Your task to perform on an android device: manage bookmarks in the chrome app Image 0: 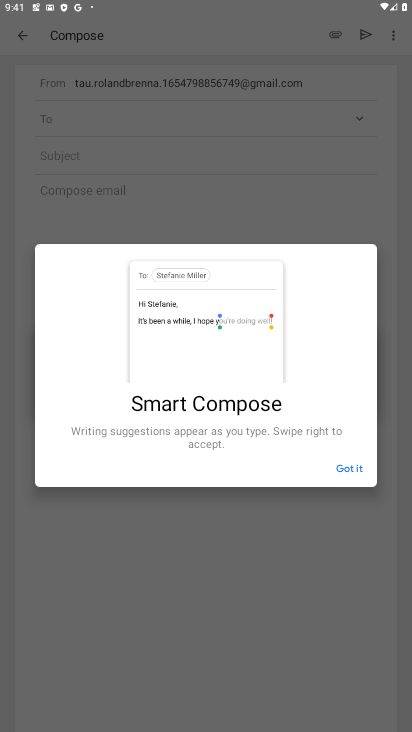
Step 0: press home button
Your task to perform on an android device: manage bookmarks in the chrome app Image 1: 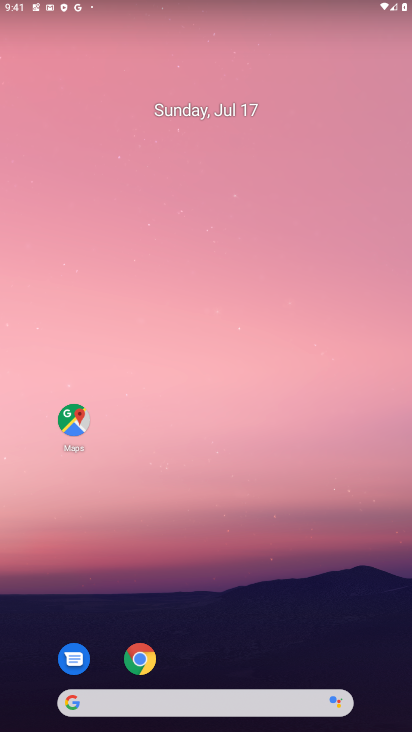
Step 1: click (143, 681)
Your task to perform on an android device: manage bookmarks in the chrome app Image 2: 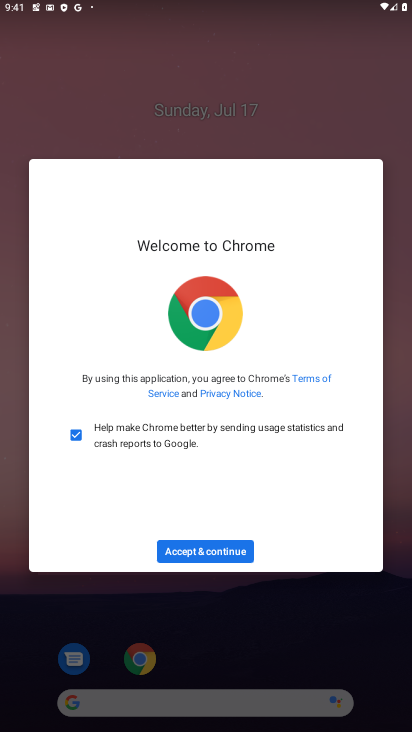
Step 2: click (219, 547)
Your task to perform on an android device: manage bookmarks in the chrome app Image 3: 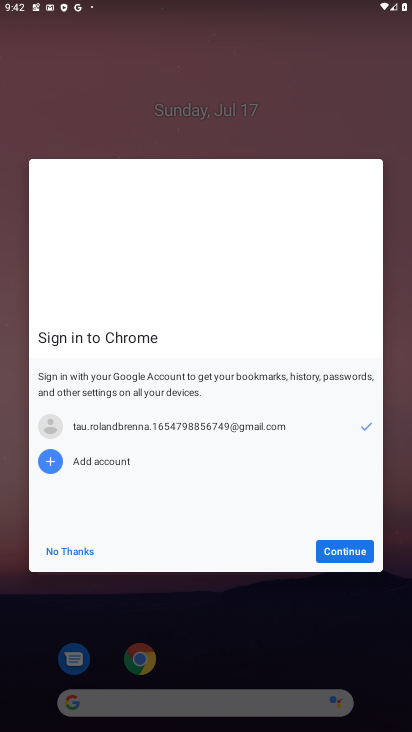
Step 3: click (349, 547)
Your task to perform on an android device: manage bookmarks in the chrome app Image 4: 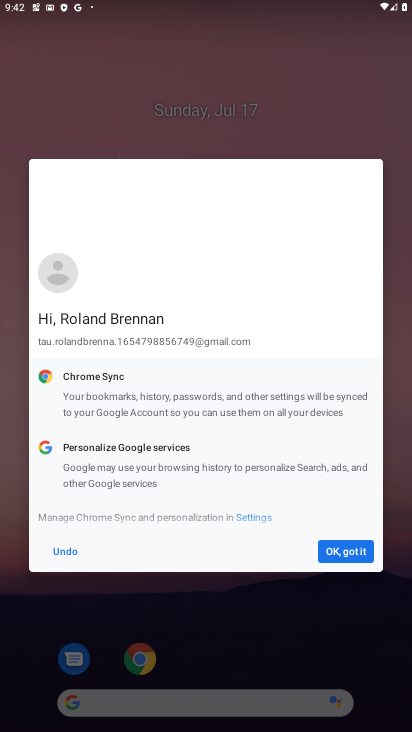
Step 4: click (349, 547)
Your task to perform on an android device: manage bookmarks in the chrome app Image 5: 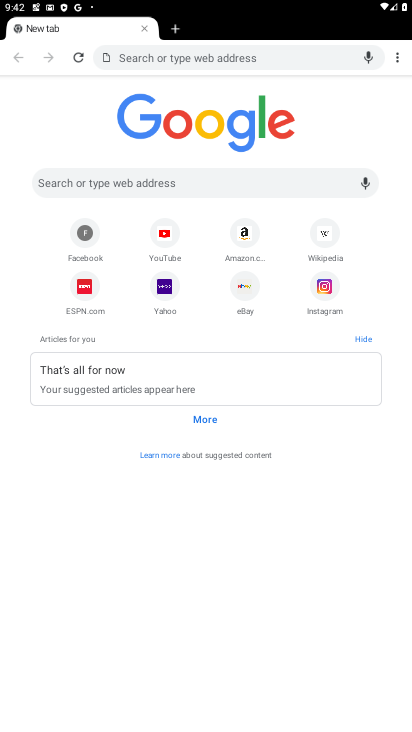
Step 5: drag from (402, 66) to (370, 118)
Your task to perform on an android device: manage bookmarks in the chrome app Image 6: 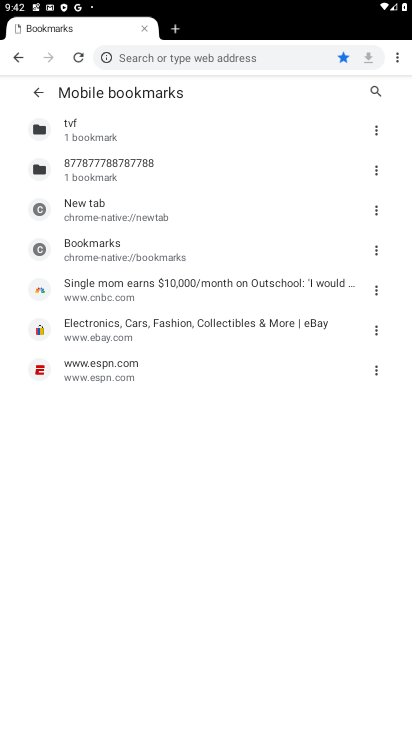
Step 6: click (185, 214)
Your task to perform on an android device: manage bookmarks in the chrome app Image 7: 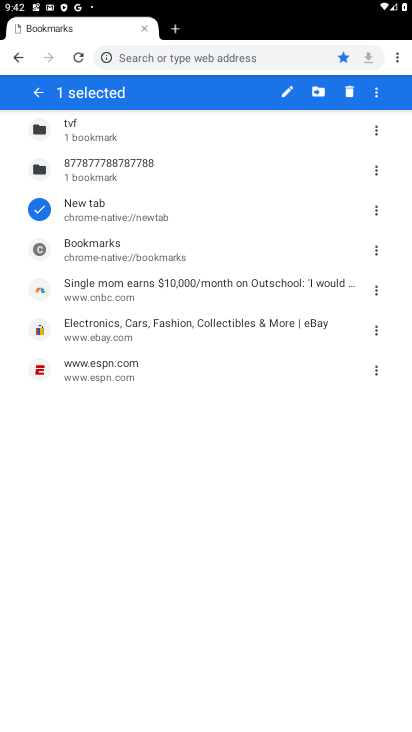
Step 7: click (153, 258)
Your task to perform on an android device: manage bookmarks in the chrome app Image 8: 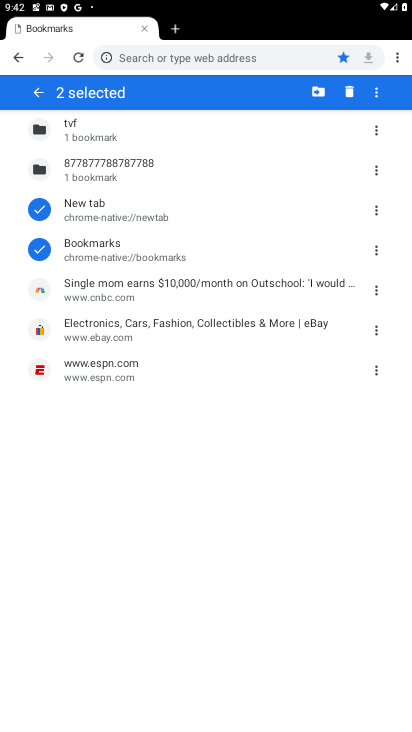
Step 8: click (147, 300)
Your task to perform on an android device: manage bookmarks in the chrome app Image 9: 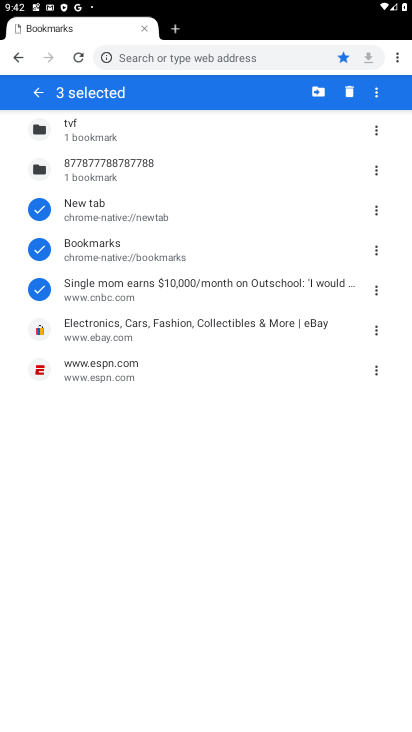
Step 9: click (138, 336)
Your task to perform on an android device: manage bookmarks in the chrome app Image 10: 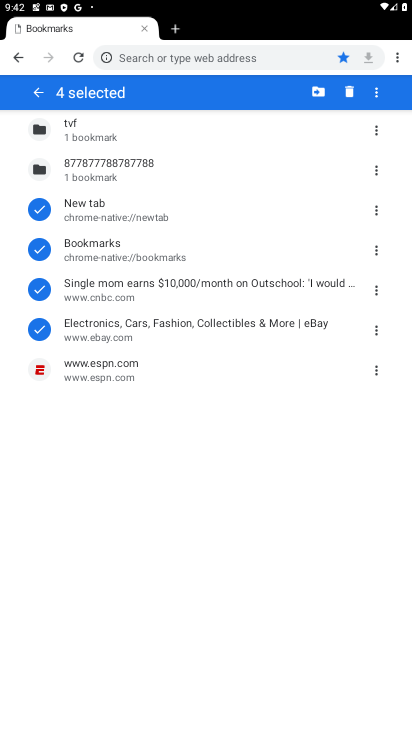
Step 10: click (113, 367)
Your task to perform on an android device: manage bookmarks in the chrome app Image 11: 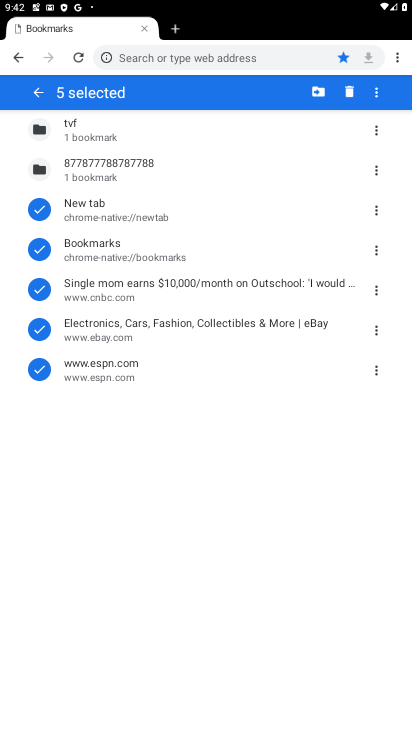
Step 11: click (319, 93)
Your task to perform on an android device: manage bookmarks in the chrome app Image 12: 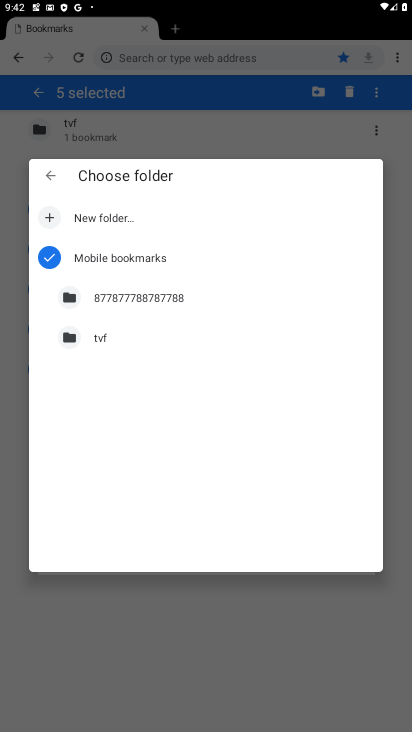
Step 12: click (145, 336)
Your task to perform on an android device: manage bookmarks in the chrome app Image 13: 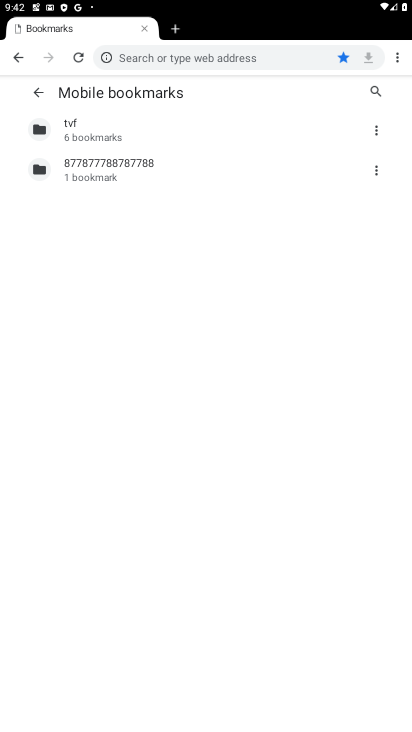
Step 13: task complete